Your task to perform on an android device: Go to Yahoo.com Image 0: 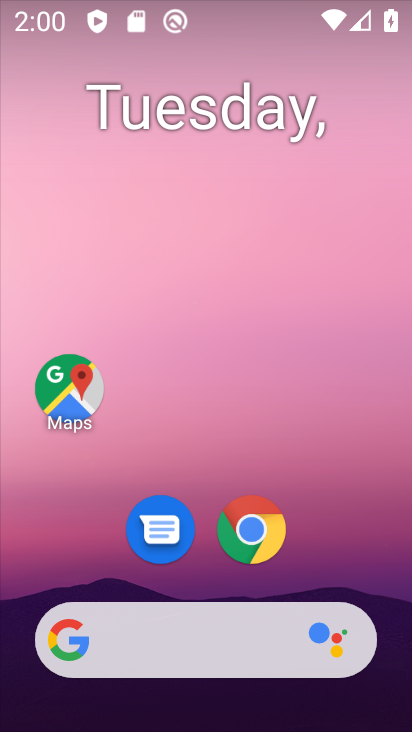
Step 0: click (256, 535)
Your task to perform on an android device: Go to Yahoo.com Image 1: 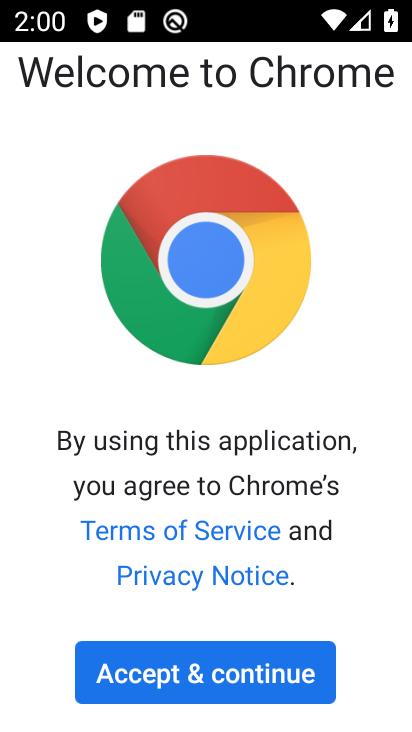
Step 1: click (121, 686)
Your task to perform on an android device: Go to Yahoo.com Image 2: 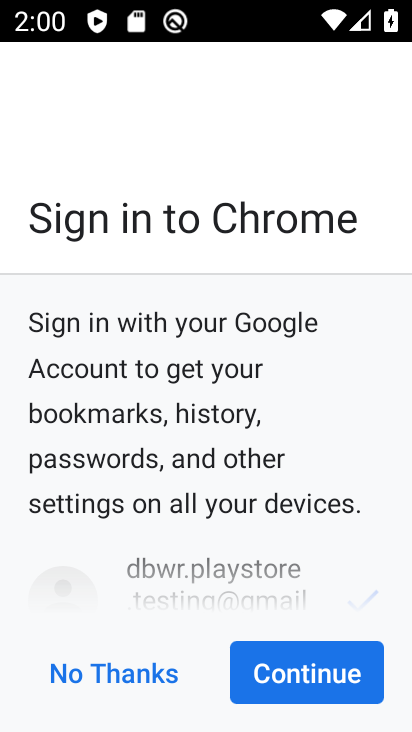
Step 2: click (145, 680)
Your task to perform on an android device: Go to Yahoo.com Image 3: 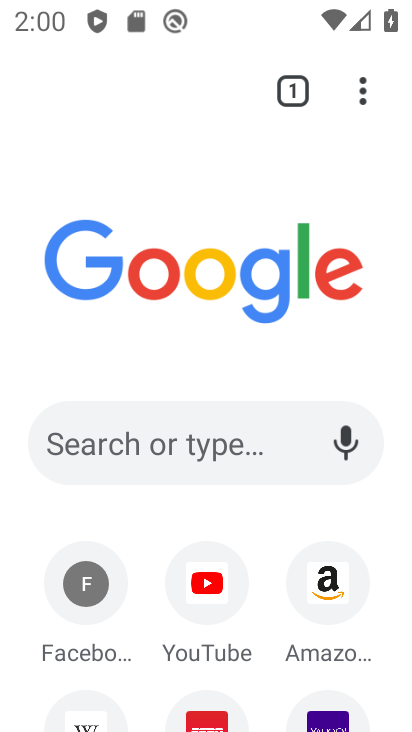
Step 3: click (330, 710)
Your task to perform on an android device: Go to Yahoo.com Image 4: 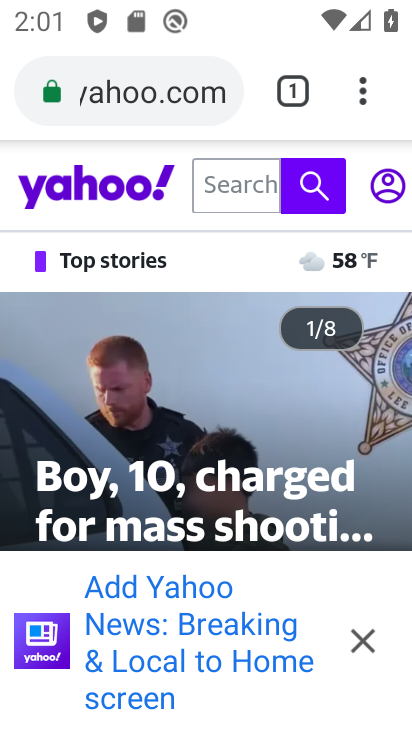
Step 4: task complete